Your task to perform on an android device: Go to sound settings Image 0: 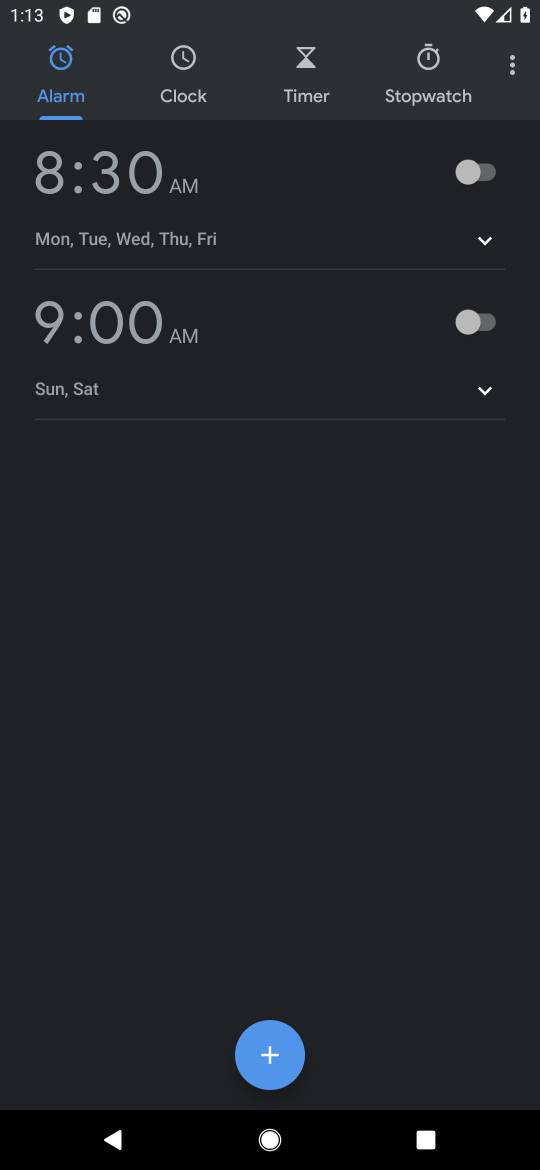
Step 0: press home button
Your task to perform on an android device: Go to sound settings Image 1: 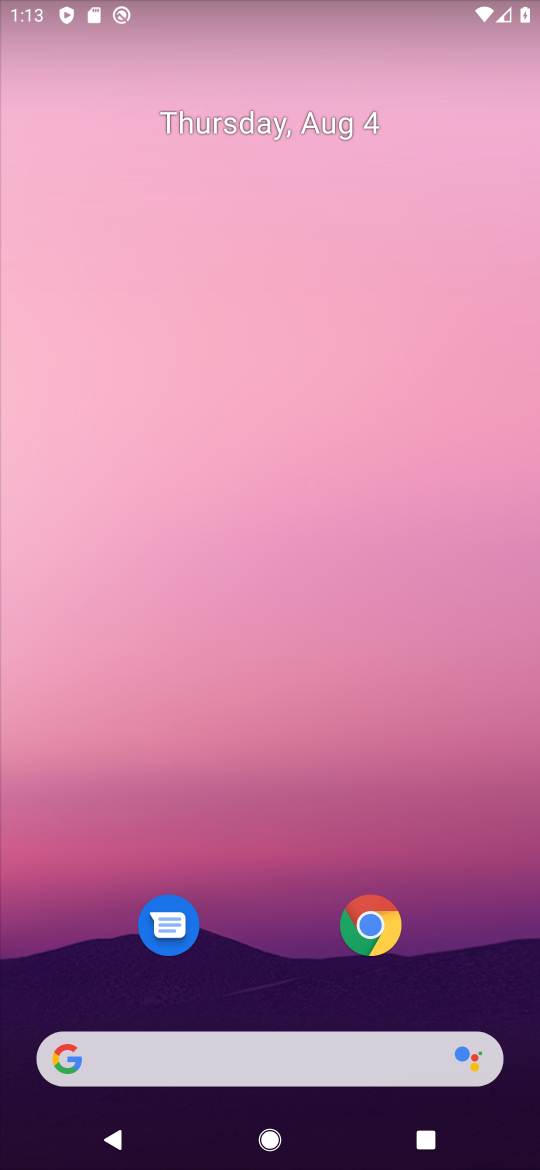
Step 1: drag from (293, 848) to (256, 62)
Your task to perform on an android device: Go to sound settings Image 2: 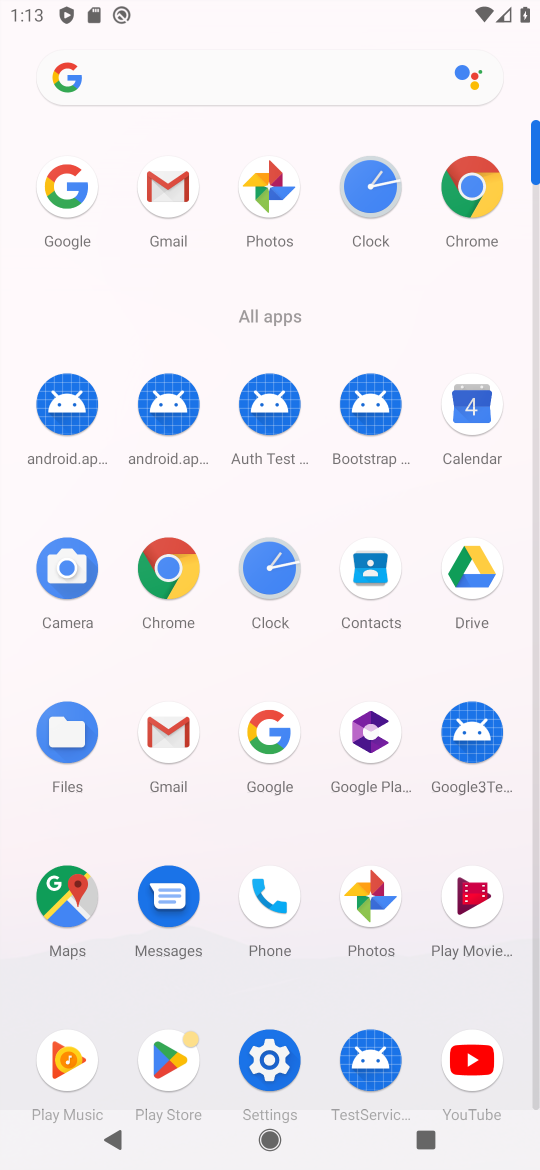
Step 2: click (264, 1065)
Your task to perform on an android device: Go to sound settings Image 3: 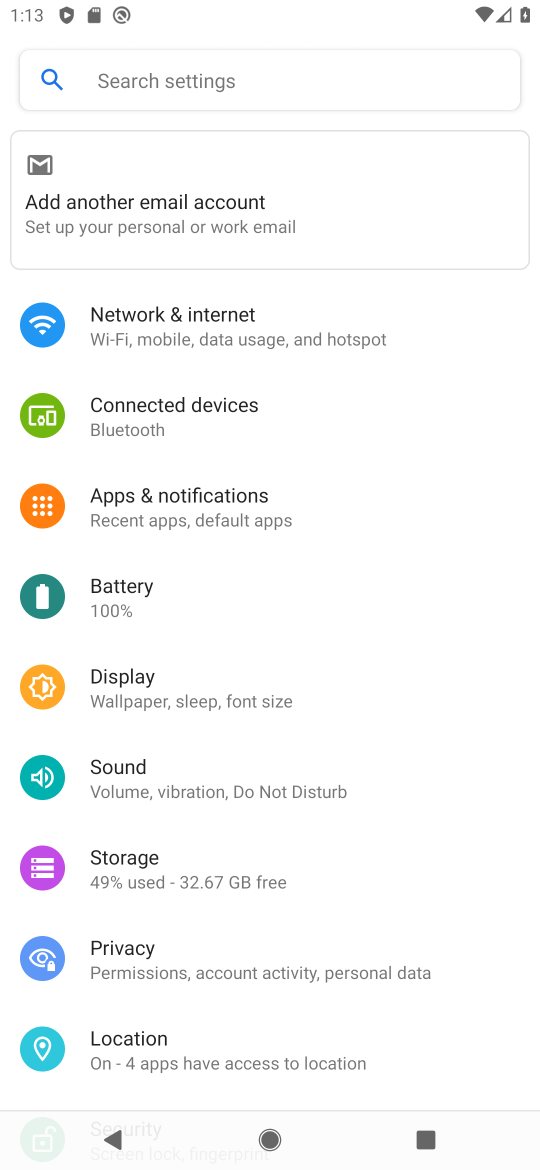
Step 3: click (169, 792)
Your task to perform on an android device: Go to sound settings Image 4: 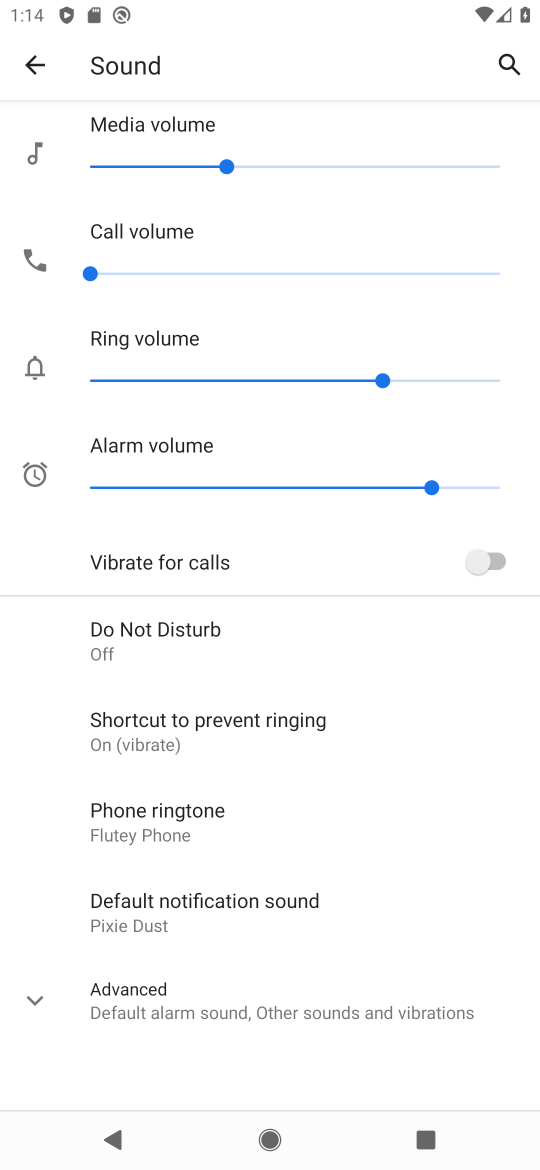
Step 4: task complete